Your task to perform on an android device: Open Maps and search for coffee Image 0: 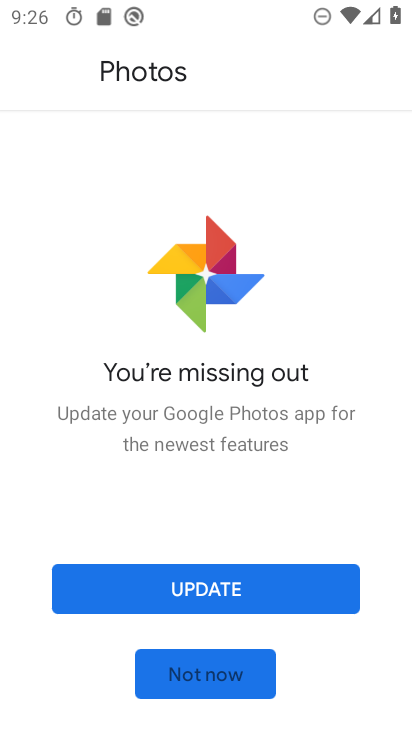
Step 0: press home button
Your task to perform on an android device: Open Maps and search for coffee Image 1: 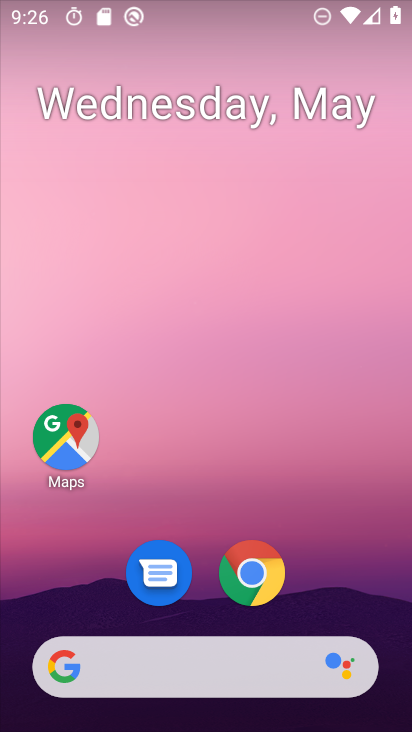
Step 1: click (53, 417)
Your task to perform on an android device: Open Maps and search for coffee Image 2: 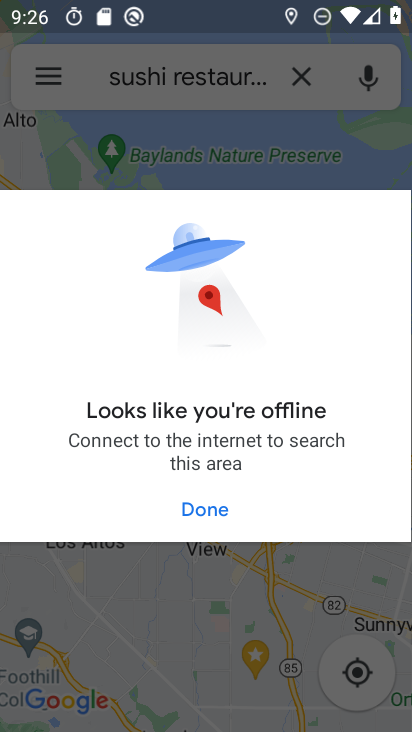
Step 2: press back button
Your task to perform on an android device: Open Maps and search for coffee Image 3: 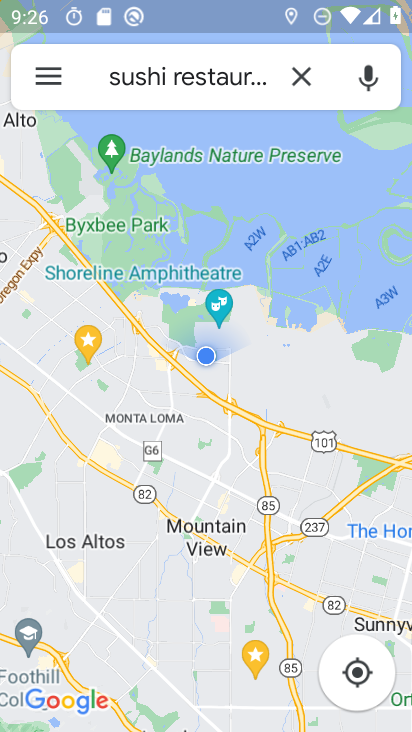
Step 3: click (295, 72)
Your task to perform on an android device: Open Maps and search for coffee Image 4: 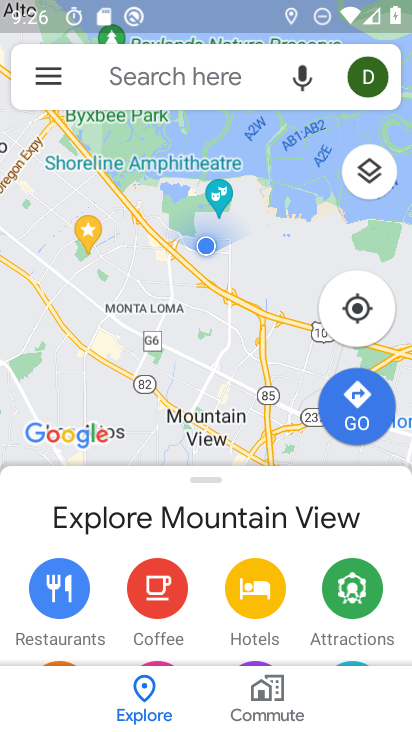
Step 4: click (121, 78)
Your task to perform on an android device: Open Maps and search for coffee Image 5: 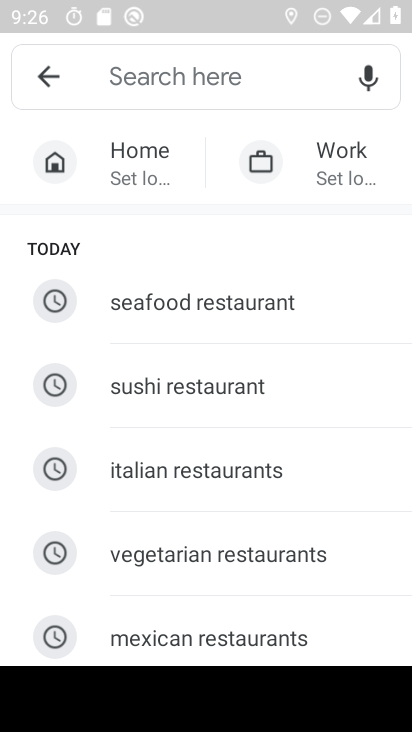
Step 5: type "coffee"
Your task to perform on an android device: Open Maps and search for coffee Image 6: 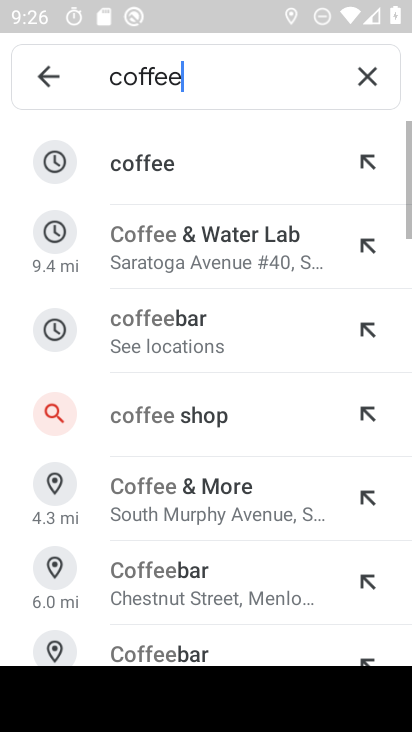
Step 6: click (121, 164)
Your task to perform on an android device: Open Maps and search for coffee Image 7: 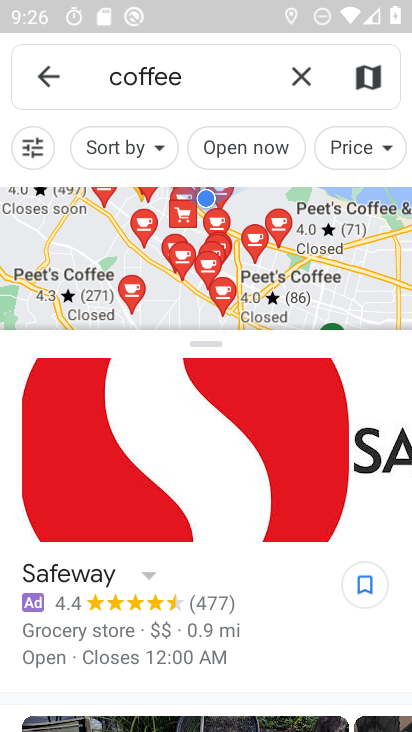
Step 7: task complete